Your task to perform on an android device: Set the phone to "Do not disturb". Image 0: 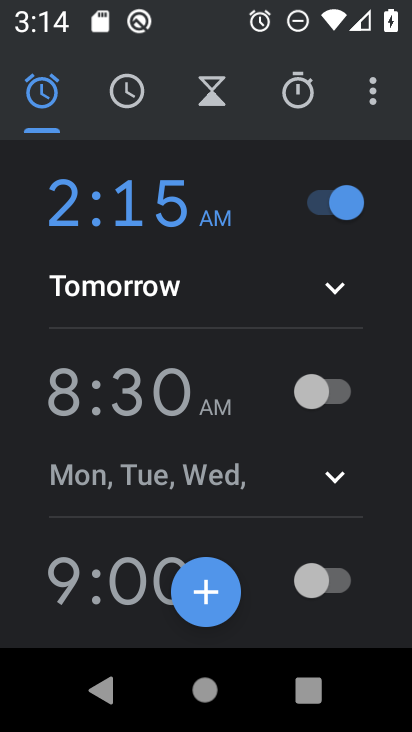
Step 0: press home button
Your task to perform on an android device: Set the phone to "Do not disturb". Image 1: 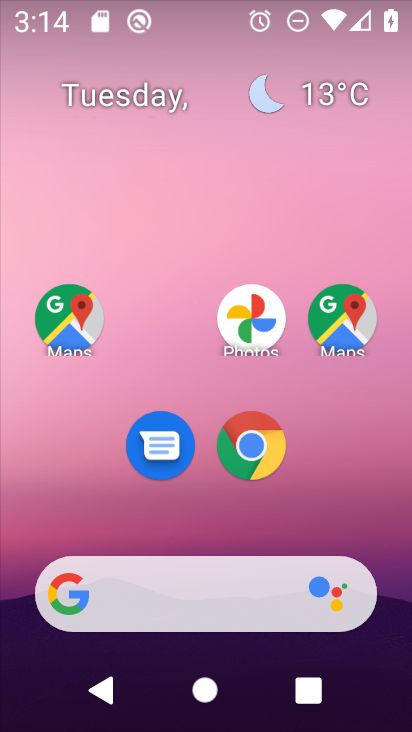
Step 1: drag from (391, 565) to (401, 258)
Your task to perform on an android device: Set the phone to "Do not disturb". Image 2: 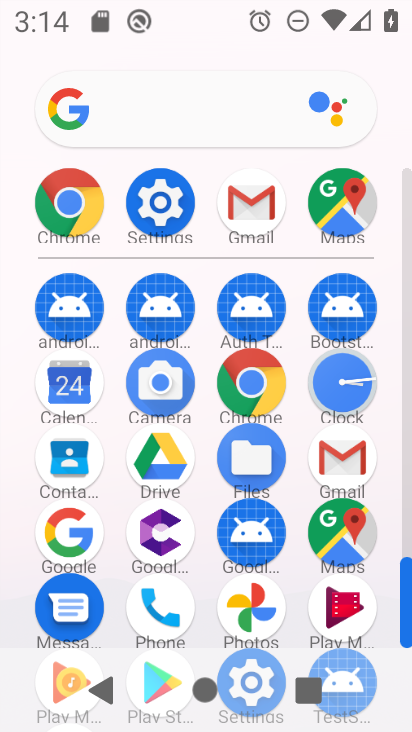
Step 2: drag from (387, 503) to (389, 274)
Your task to perform on an android device: Set the phone to "Do not disturb". Image 3: 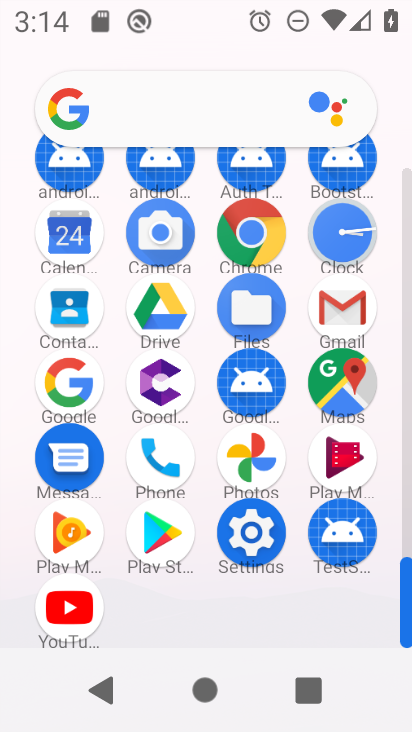
Step 3: click (241, 554)
Your task to perform on an android device: Set the phone to "Do not disturb". Image 4: 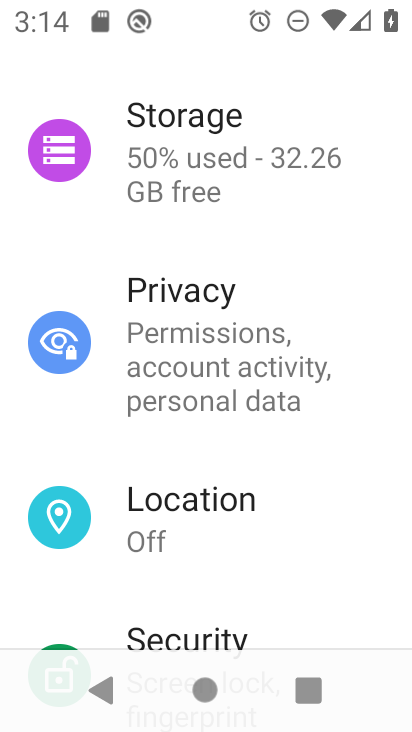
Step 4: drag from (361, 386) to (361, 457)
Your task to perform on an android device: Set the phone to "Do not disturb". Image 5: 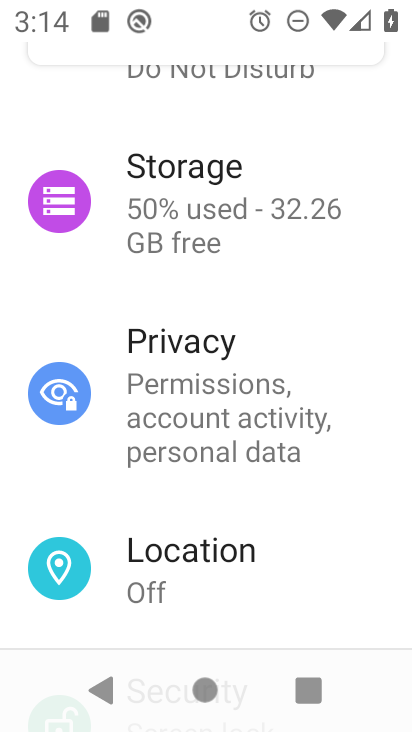
Step 5: drag from (366, 371) to (363, 490)
Your task to perform on an android device: Set the phone to "Do not disturb". Image 6: 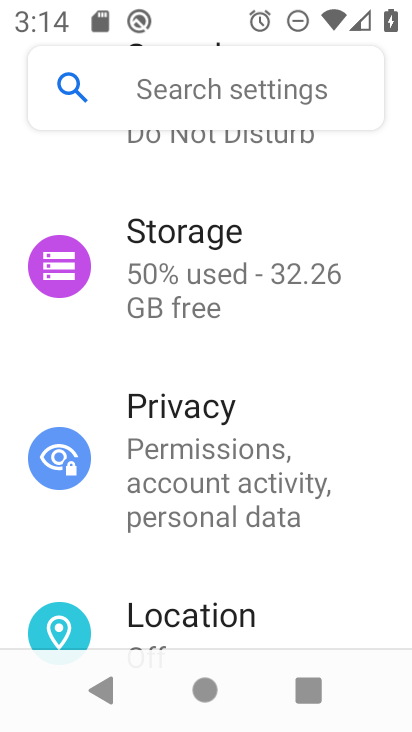
Step 6: drag from (349, 342) to (363, 480)
Your task to perform on an android device: Set the phone to "Do not disturb". Image 7: 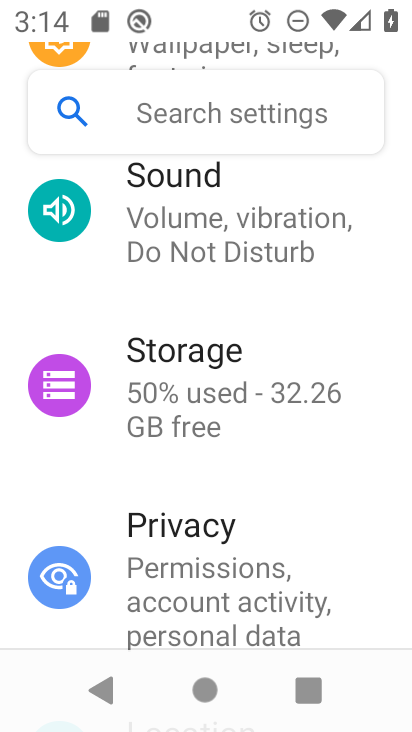
Step 7: drag from (350, 336) to (351, 481)
Your task to perform on an android device: Set the phone to "Do not disturb". Image 8: 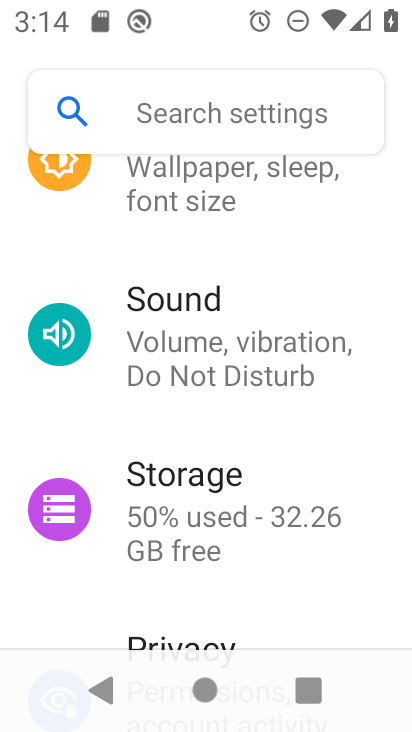
Step 8: click (312, 363)
Your task to perform on an android device: Set the phone to "Do not disturb". Image 9: 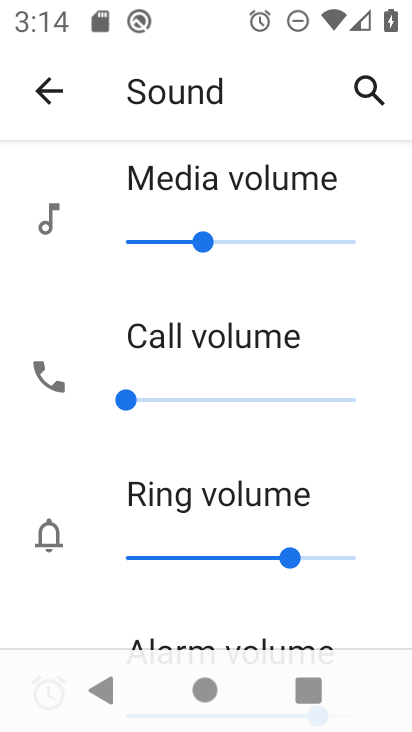
Step 9: task complete